Your task to perform on an android device: snooze an email in the gmail app Image 0: 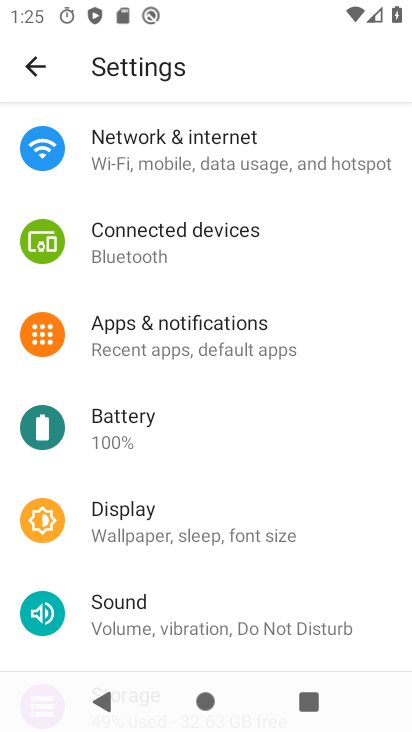
Step 0: press home button
Your task to perform on an android device: snooze an email in the gmail app Image 1: 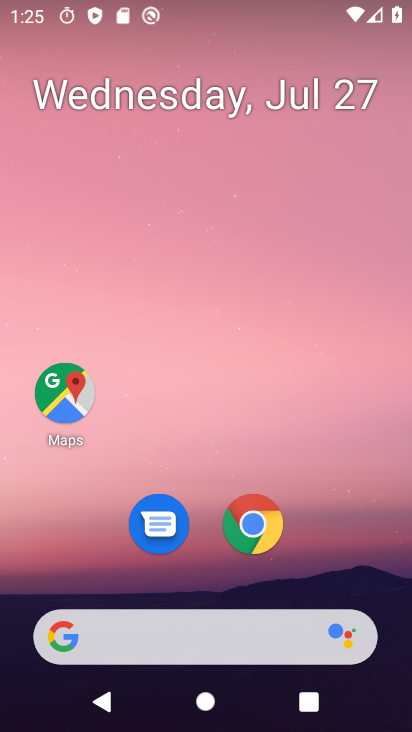
Step 1: drag from (325, 559) to (344, 66)
Your task to perform on an android device: snooze an email in the gmail app Image 2: 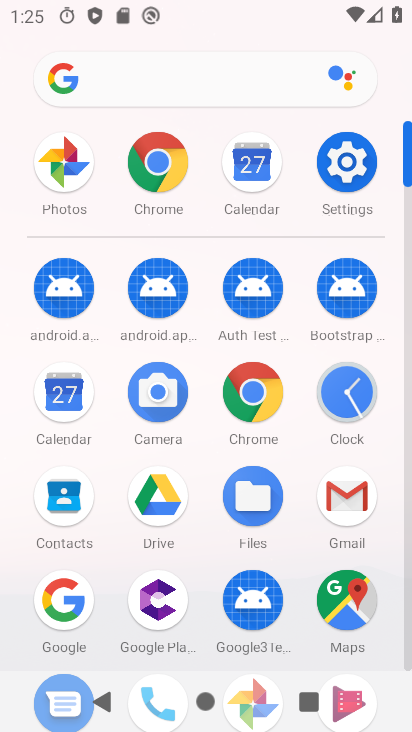
Step 2: click (348, 502)
Your task to perform on an android device: snooze an email in the gmail app Image 3: 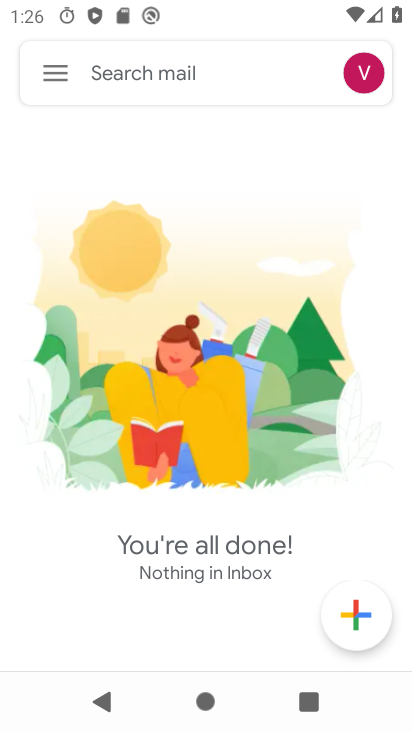
Step 3: click (61, 76)
Your task to perform on an android device: snooze an email in the gmail app Image 4: 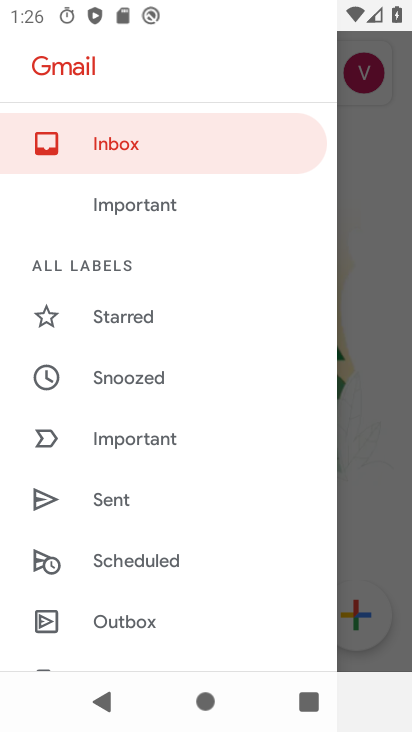
Step 4: drag from (210, 546) to (249, 117)
Your task to perform on an android device: snooze an email in the gmail app Image 5: 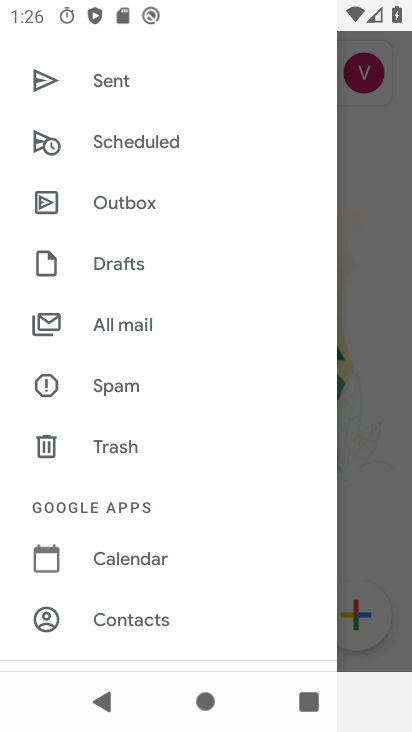
Step 5: click (150, 317)
Your task to perform on an android device: snooze an email in the gmail app Image 6: 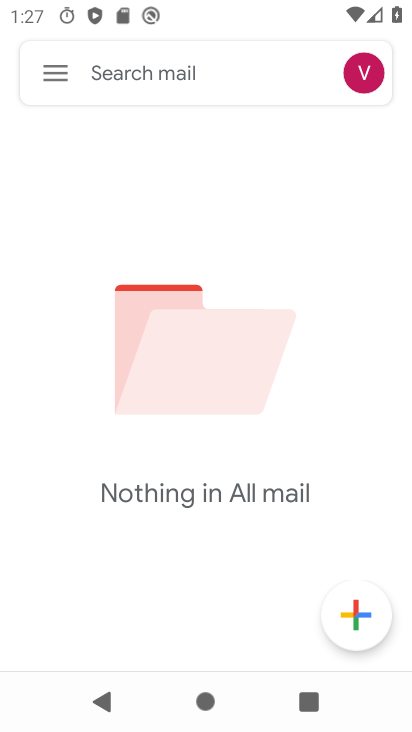
Step 6: task complete